Your task to perform on an android device: Go to eBay Image 0: 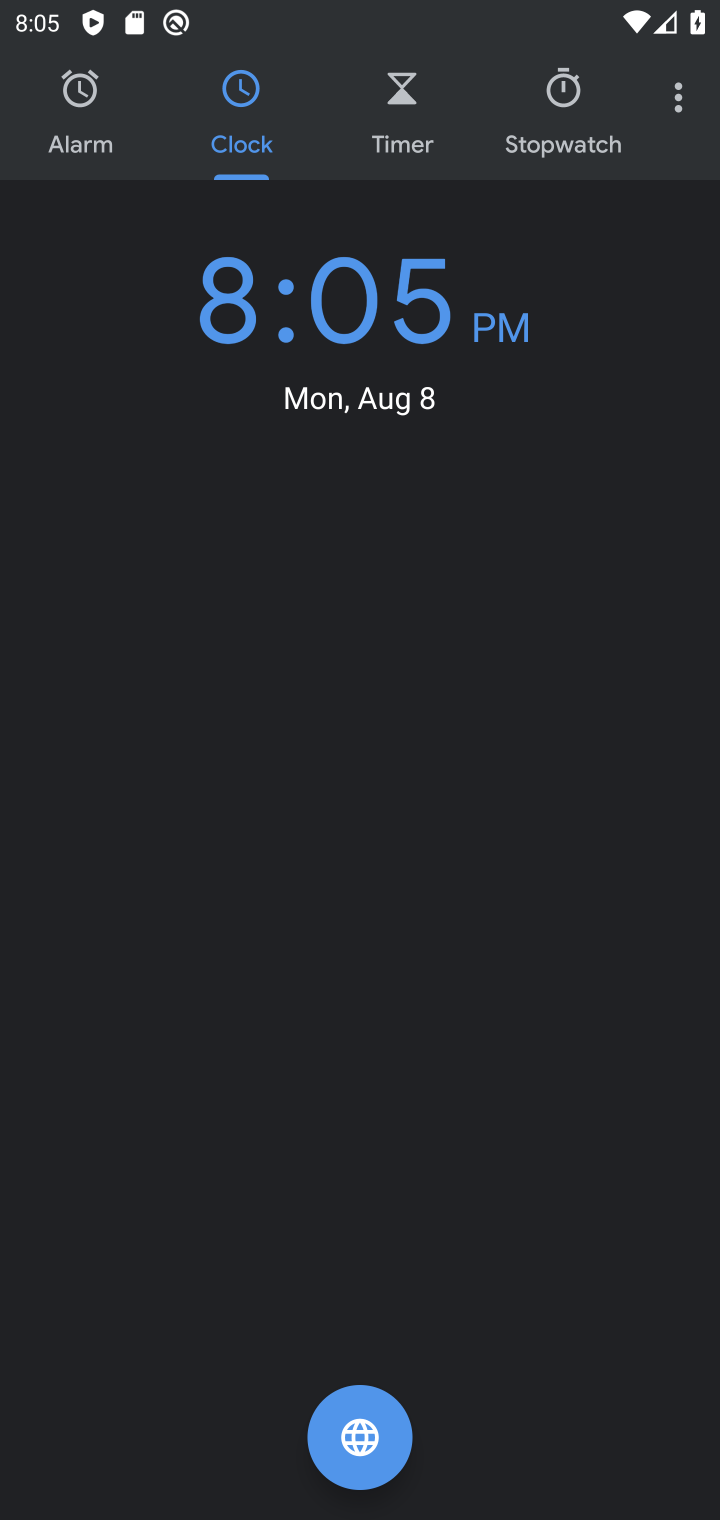
Step 0: press home button
Your task to perform on an android device: Go to eBay Image 1: 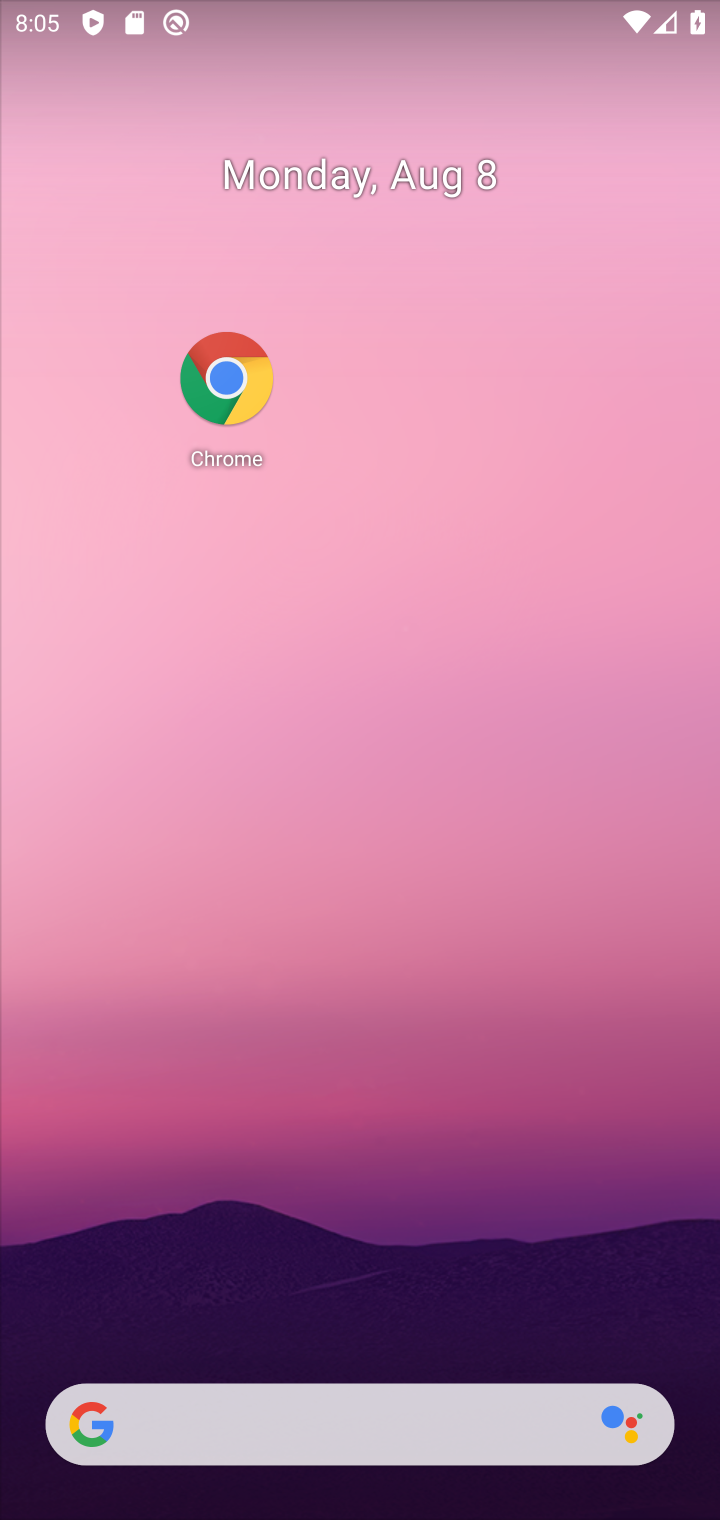
Step 1: drag from (273, 1006) to (176, 297)
Your task to perform on an android device: Go to eBay Image 2: 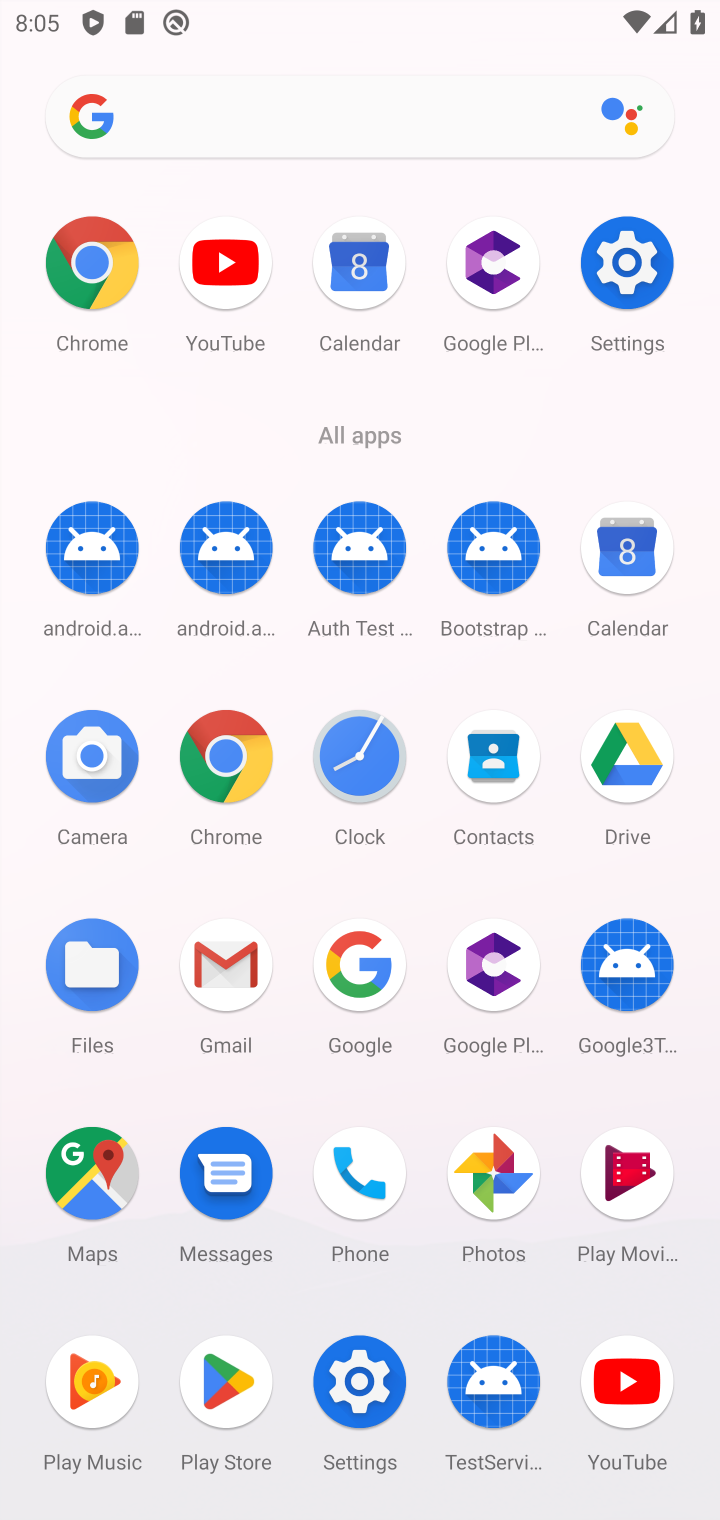
Step 2: click (98, 291)
Your task to perform on an android device: Go to eBay Image 3: 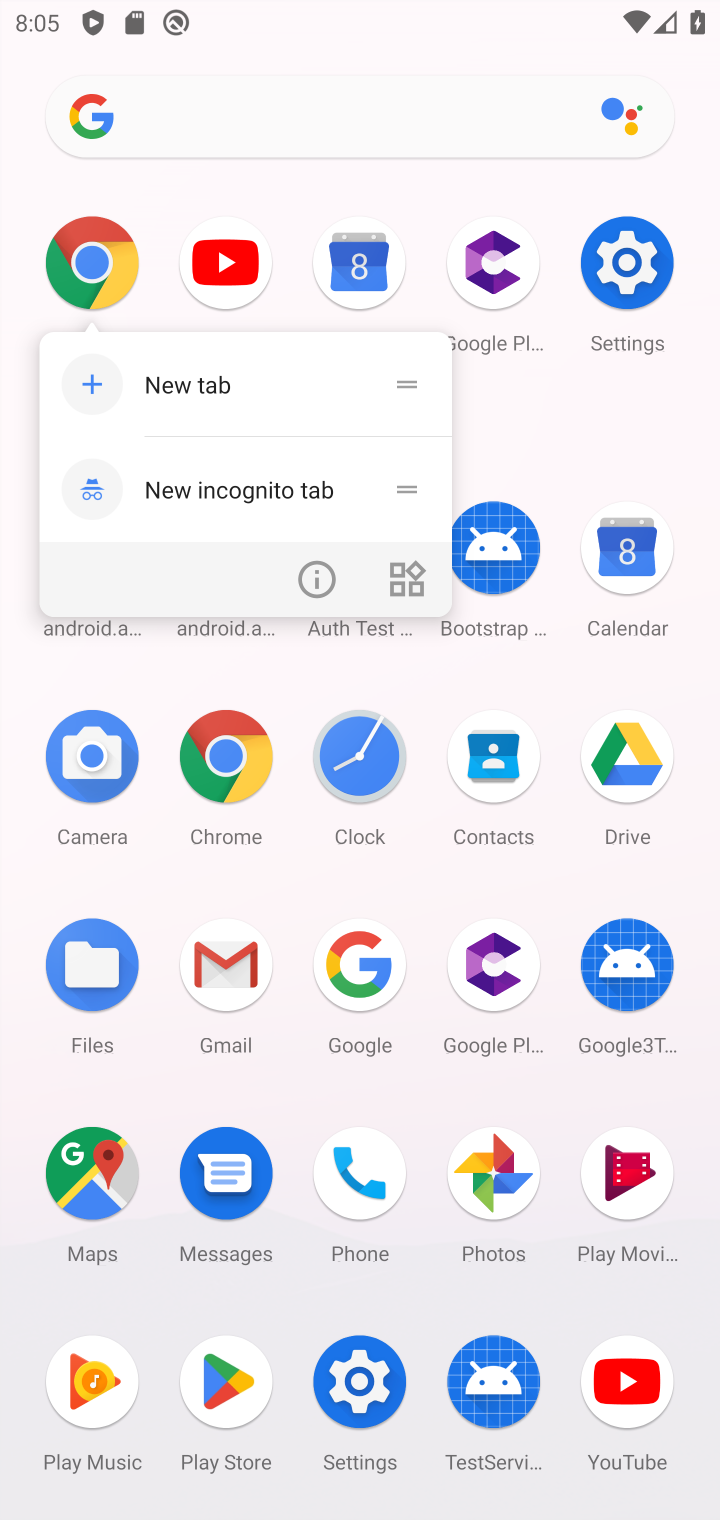
Step 3: click (63, 251)
Your task to perform on an android device: Go to eBay Image 4: 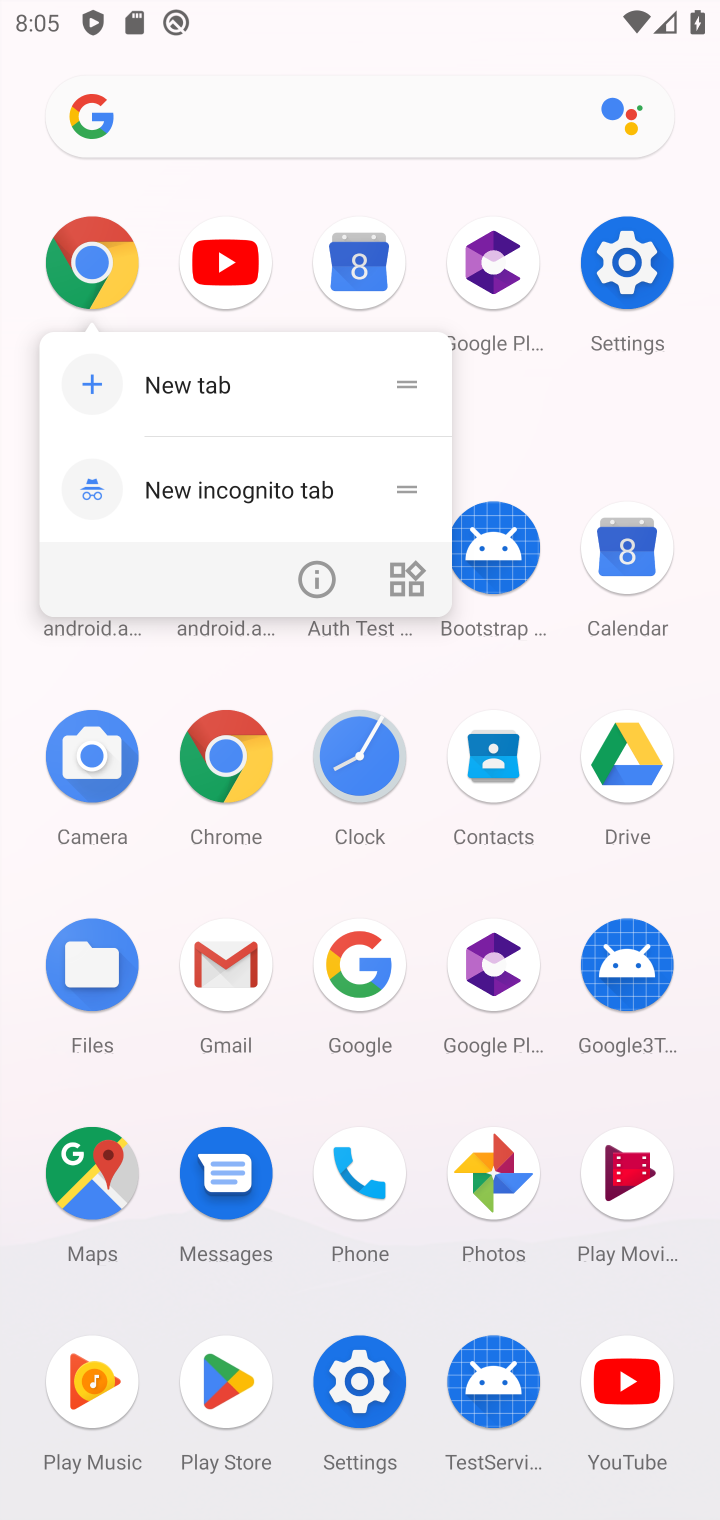
Step 4: click (66, 268)
Your task to perform on an android device: Go to eBay Image 5: 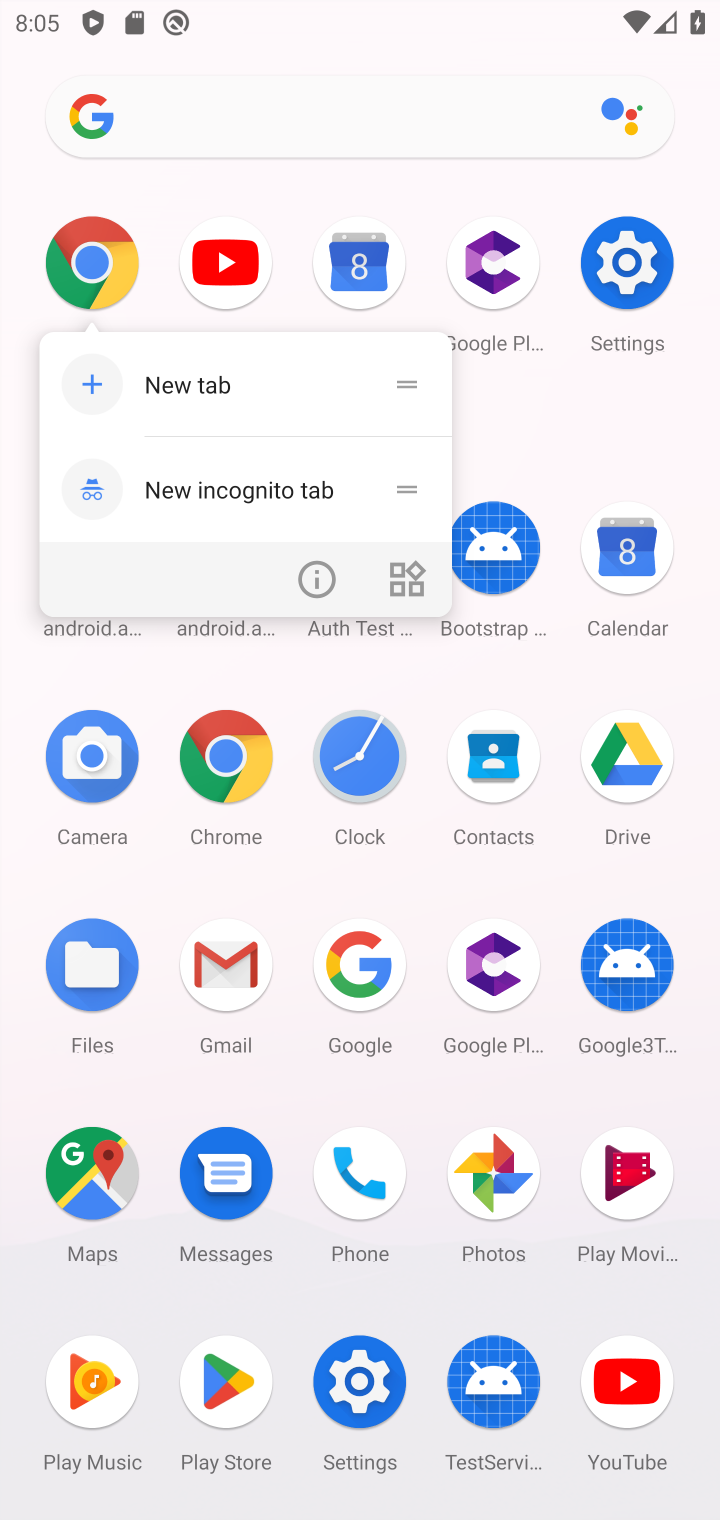
Step 5: click (99, 296)
Your task to perform on an android device: Go to eBay Image 6: 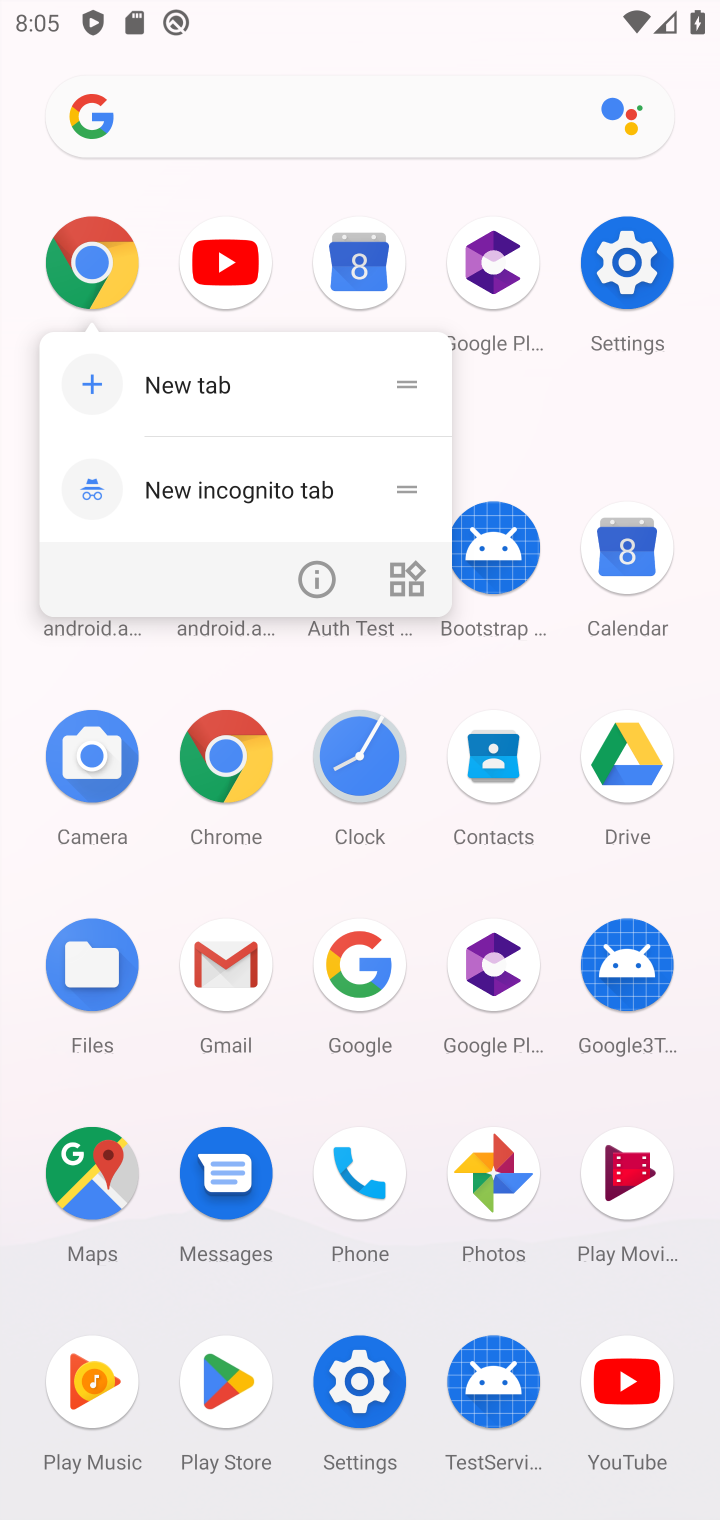
Step 6: click (92, 272)
Your task to perform on an android device: Go to eBay Image 7: 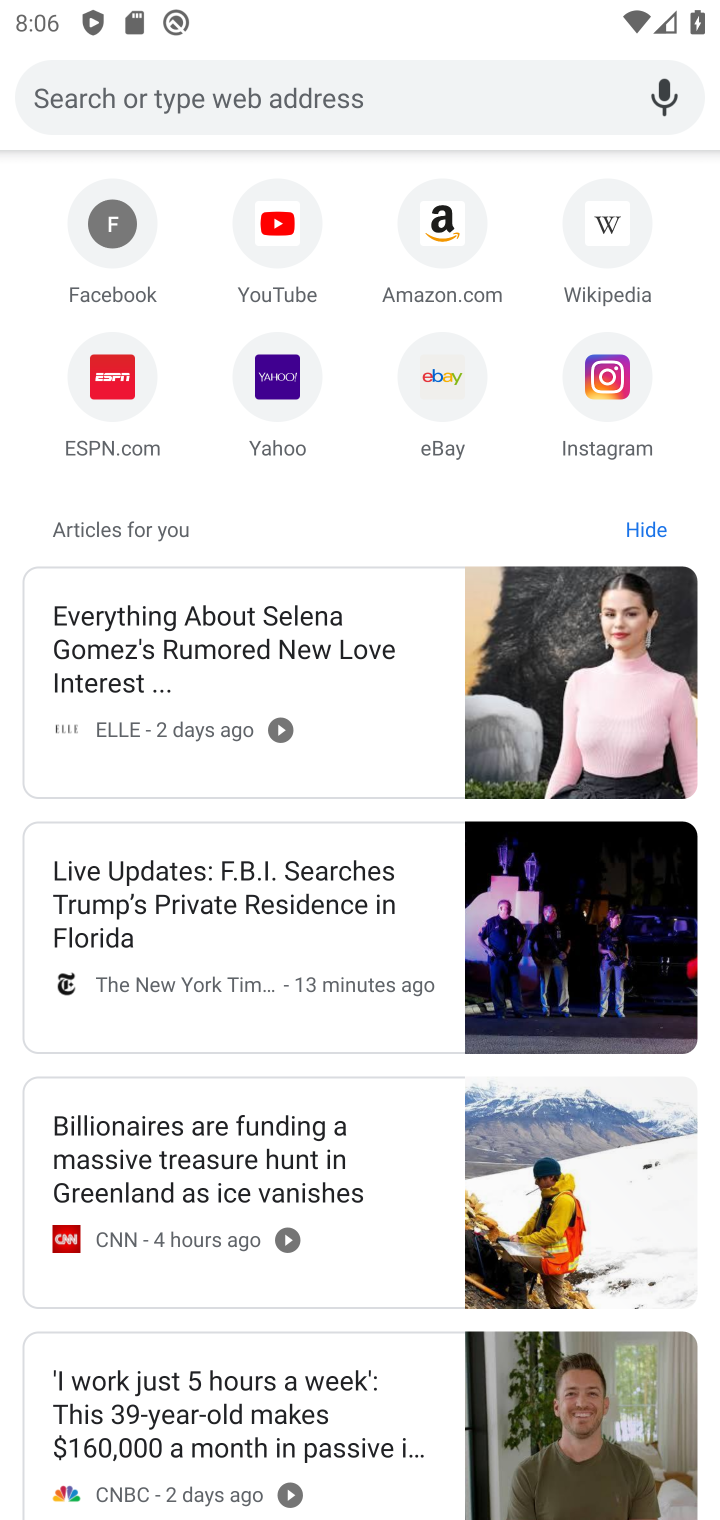
Step 7: drag from (271, 669) to (421, 1245)
Your task to perform on an android device: Go to eBay Image 8: 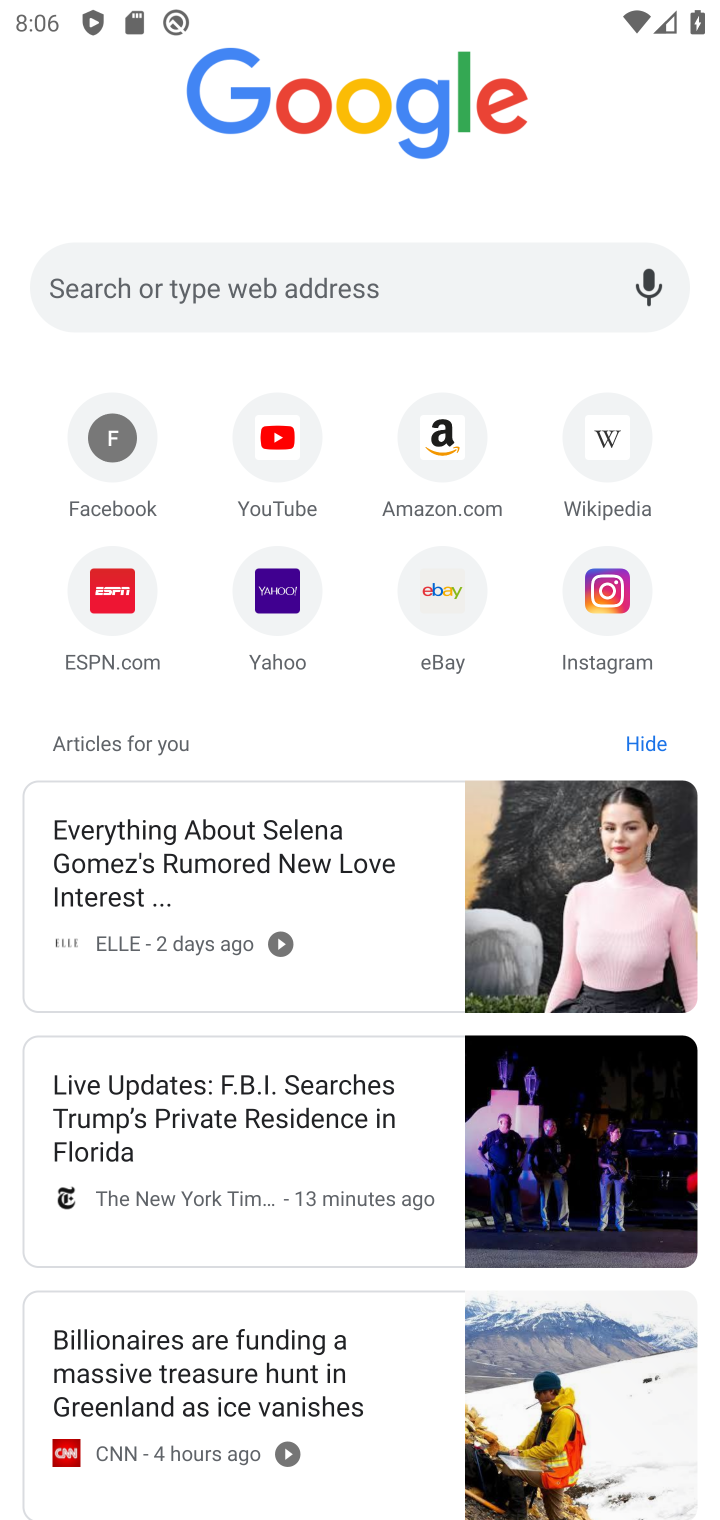
Step 8: click (466, 606)
Your task to perform on an android device: Go to eBay Image 9: 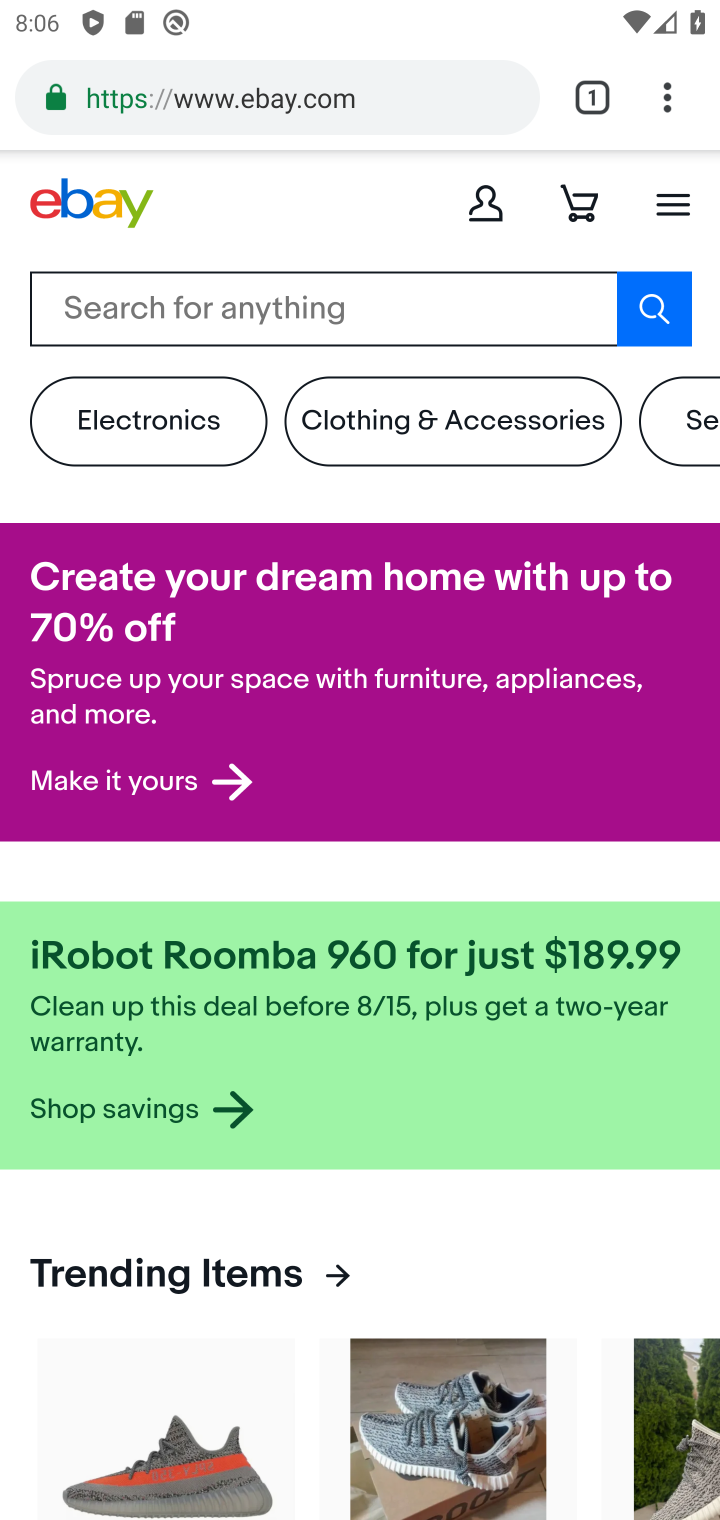
Step 9: task complete